Your task to perform on an android device: When is my next meeting? Image 0: 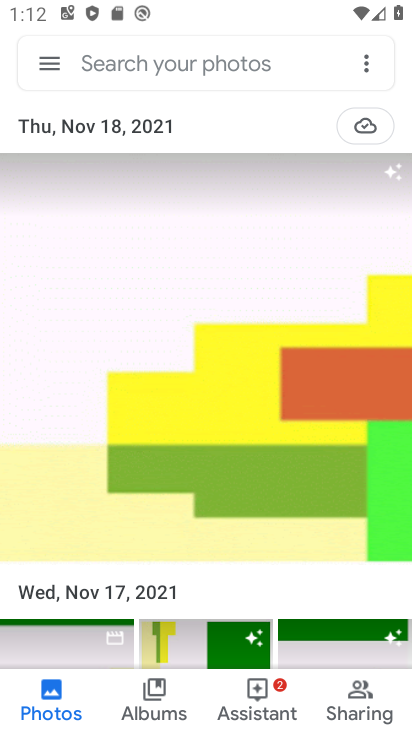
Step 0: press home button
Your task to perform on an android device: When is my next meeting? Image 1: 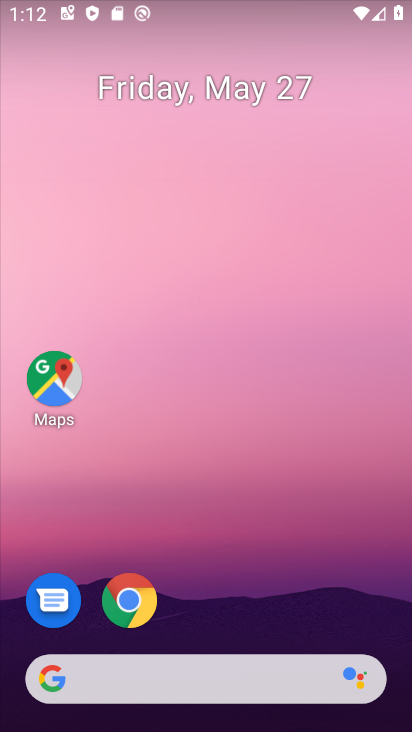
Step 1: drag from (226, 726) to (225, 74)
Your task to perform on an android device: When is my next meeting? Image 2: 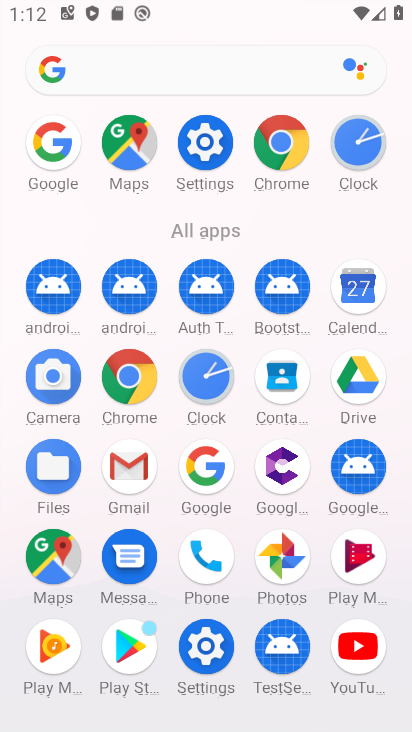
Step 2: click (358, 291)
Your task to perform on an android device: When is my next meeting? Image 3: 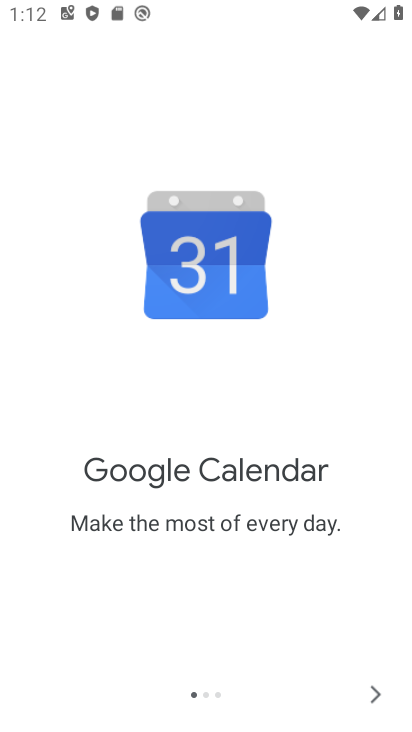
Step 3: click (378, 698)
Your task to perform on an android device: When is my next meeting? Image 4: 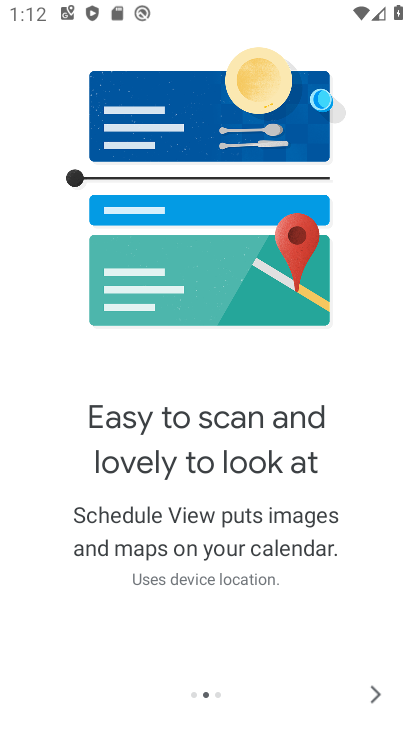
Step 4: click (374, 681)
Your task to perform on an android device: When is my next meeting? Image 5: 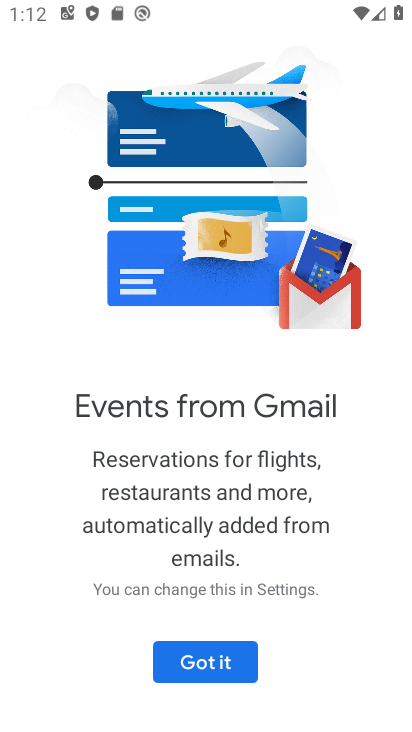
Step 5: click (216, 662)
Your task to perform on an android device: When is my next meeting? Image 6: 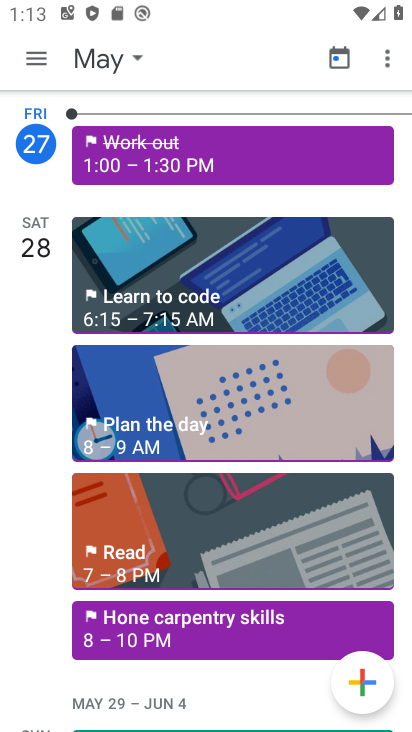
Step 6: click (124, 61)
Your task to perform on an android device: When is my next meeting? Image 7: 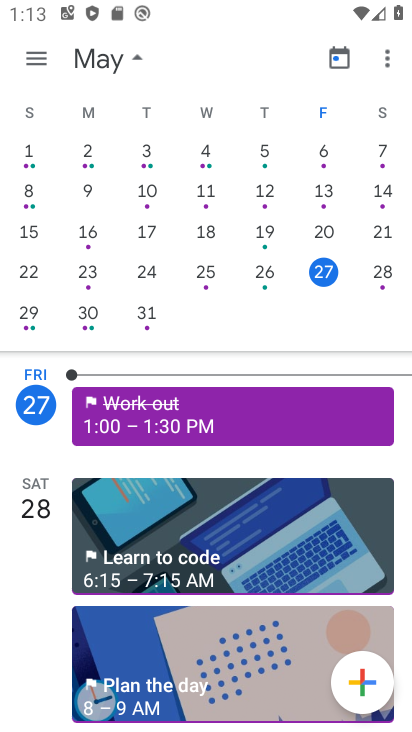
Step 7: click (381, 274)
Your task to perform on an android device: When is my next meeting? Image 8: 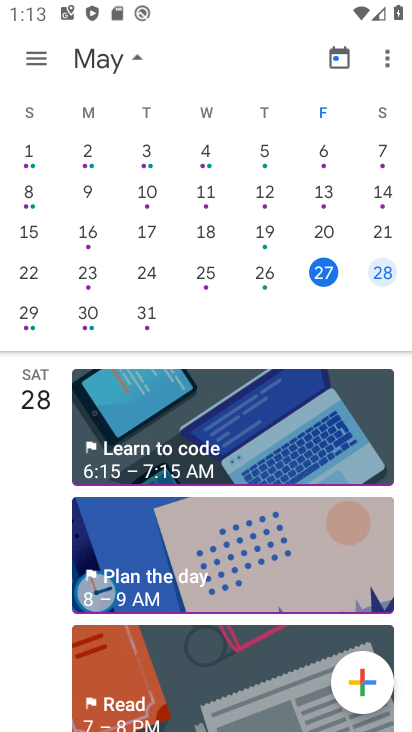
Step 8: click (381, 274)
Your task to perform on an android device: When is my next meeting? Image 9: 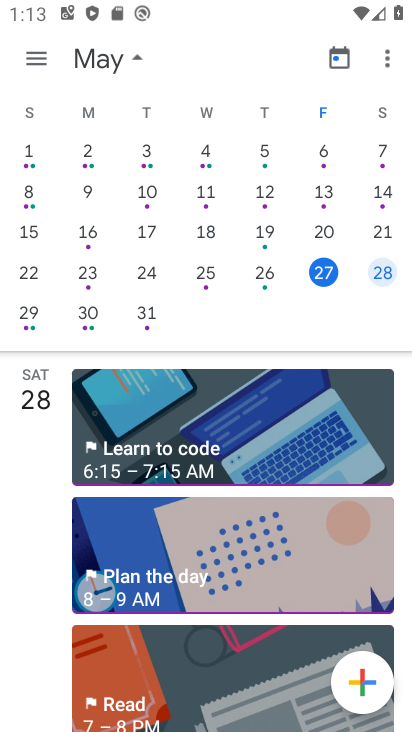
Step 9: click (136, 52)
Your task to perform on an android device: When is my next meeting? Image 10: 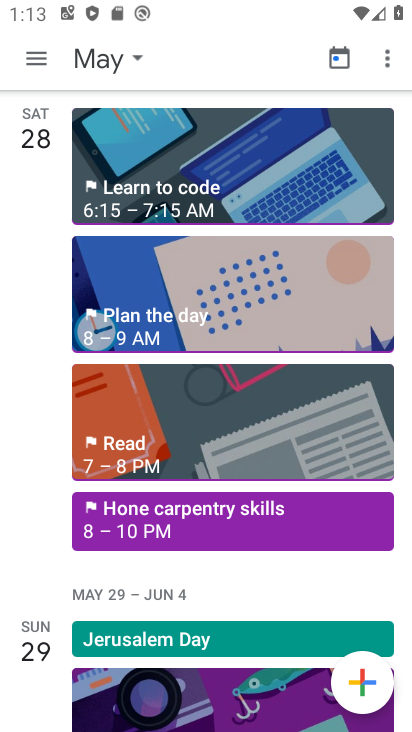
Step 10: task complete